Your task to perform on an android device: Search for Mexican restaurants on Maps Image 0: 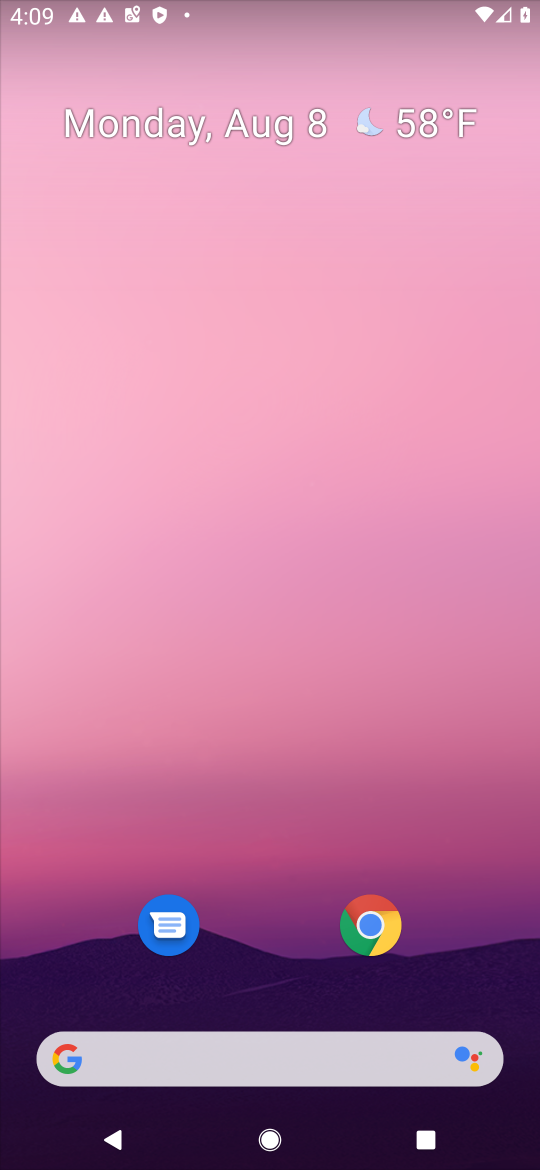
Step 0: drag from (273, 769) to (273, 209)
Your task to perform on an android device: Search for Mexican restaurants on Maps Image 1: 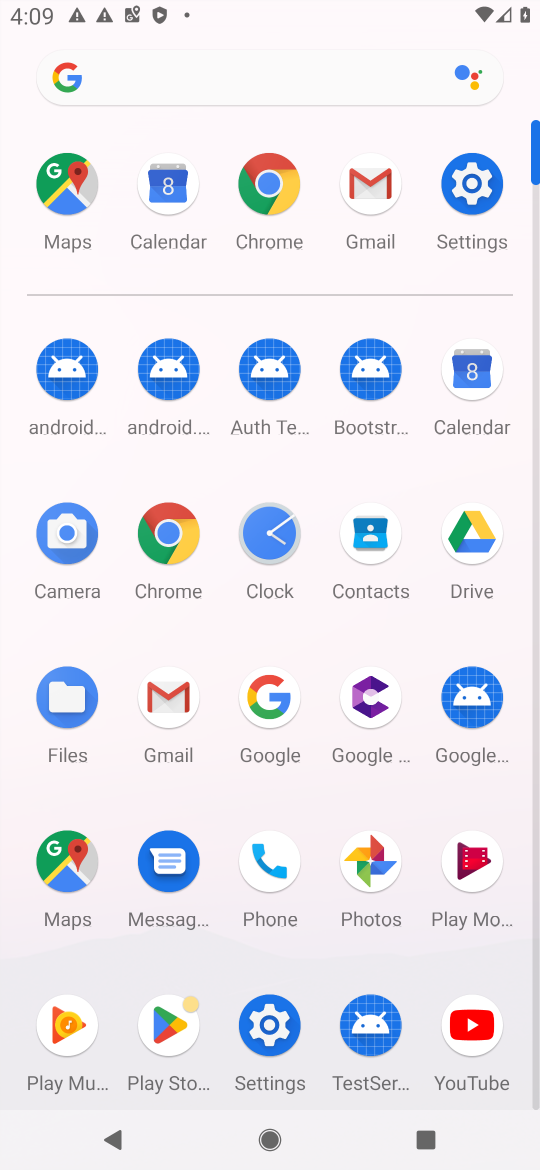
Step 1: click (57, 855)
Your task to perform on an android device: Search for Mexican restaurants on Maps Image 2: 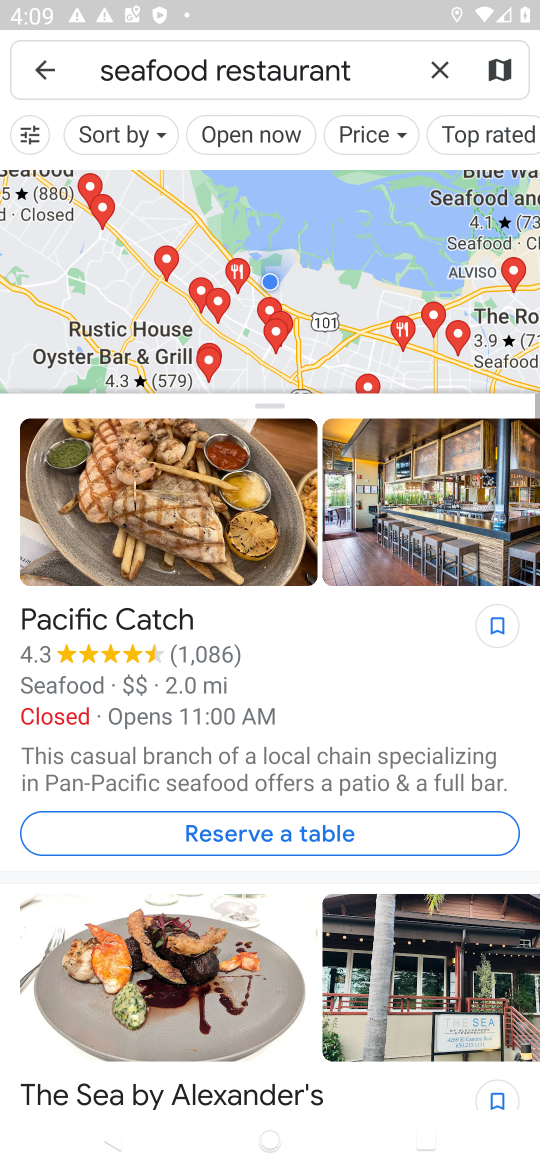
Step 2: click (428, 63)
Your task to perform on an android device: Search for Mexican restaurants on Maps Image 3: 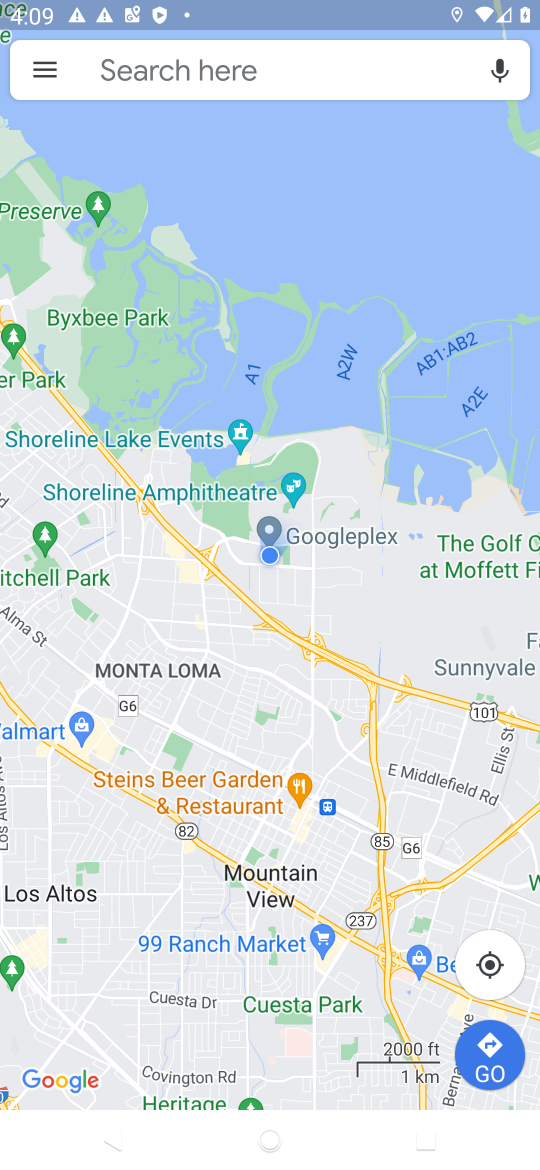
Step 3: click (328, 73)
Your task to perform on an android device: Search for Mexican restaurants on Maps Image 4: 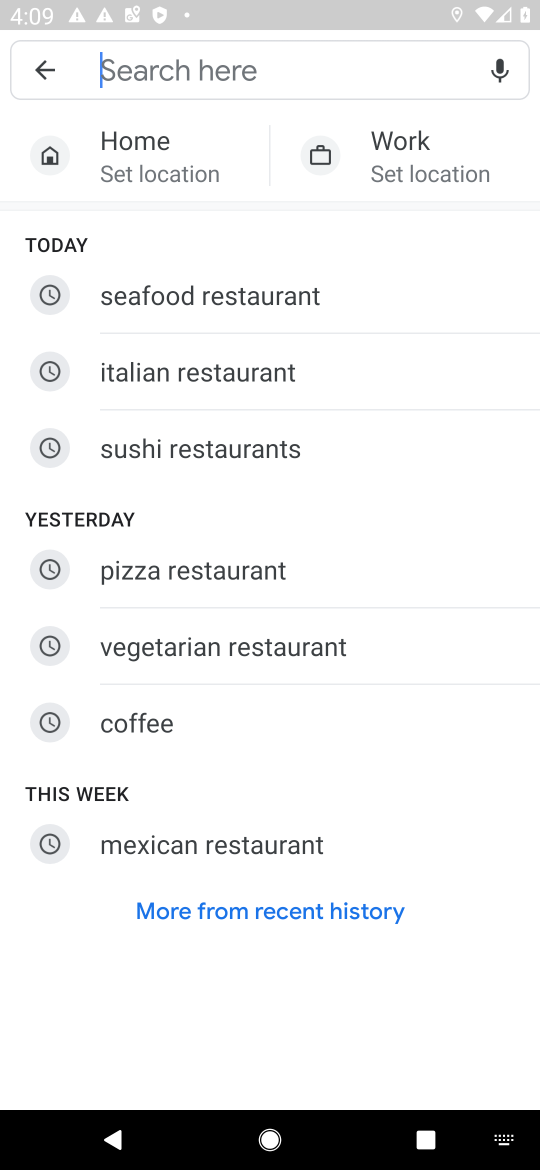
Step 4: type "Mexican restaurants"
Your task to perform on an android device: Search for Mexican restaurants on Maps Image 5: 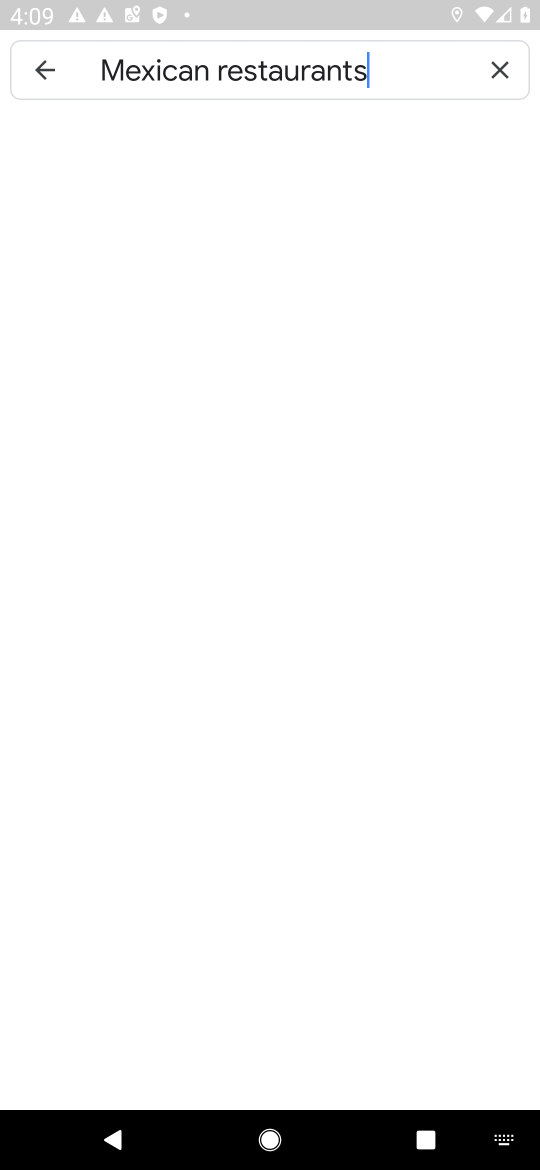
Step 5: type ""
Your task to perform on an android device: Search for Mexican restaurants on Maps Image 6: 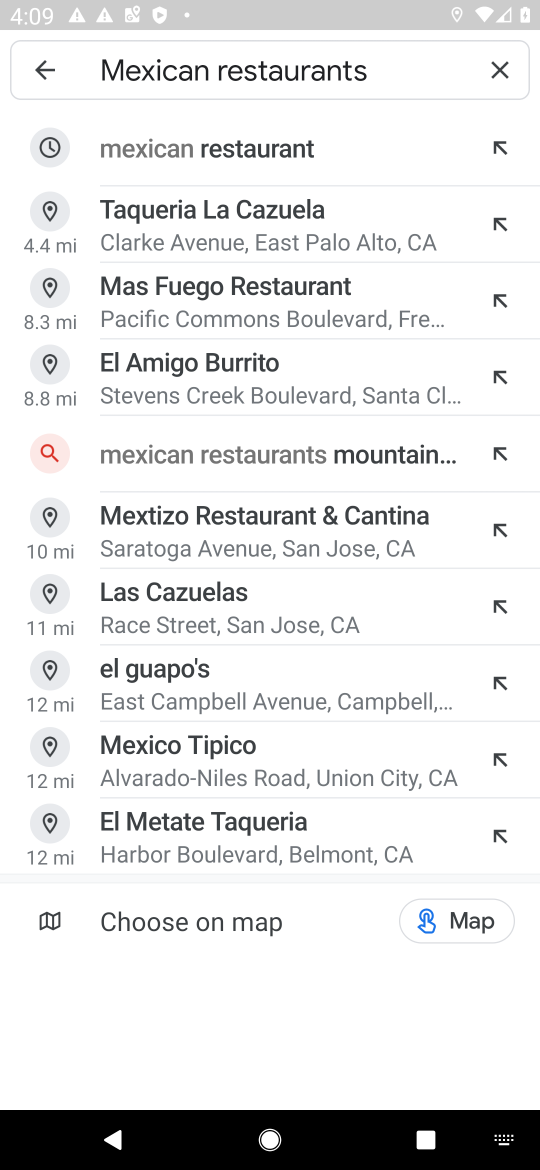
Step 6: click (289, 144)
Your task to perform on an android device: Search for Mexican restaurants on Maps Image 7: 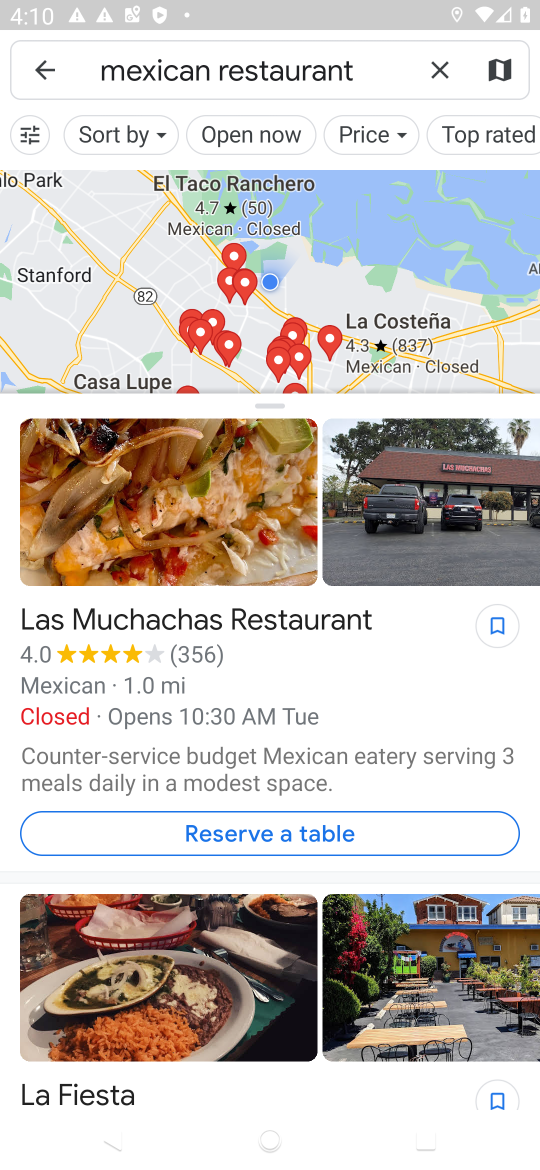
Step 7: task complete